Your task to perform on an android device: Open Maps and search for coffee Image 0: 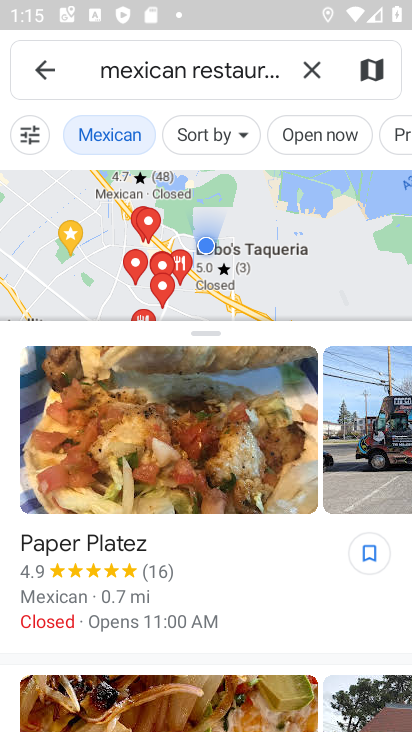
Step 0: click (310, 63)
Your task to perform on an android device: Open Maps and search for coffee Image 1: 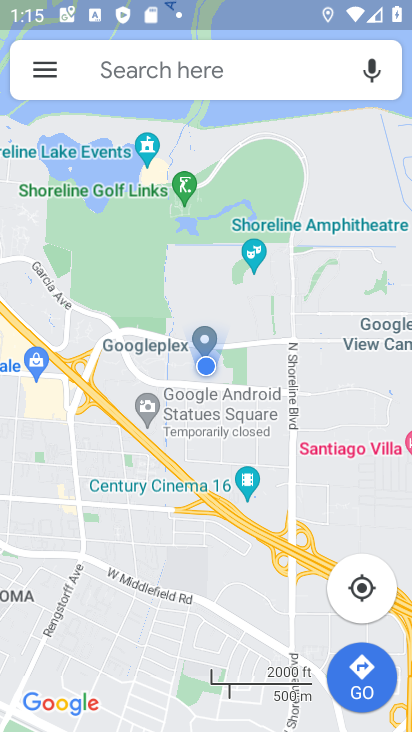
Step 1: click (109, 66)
Your task to perform on an android device: Open Maps and search for coffee Image 2: 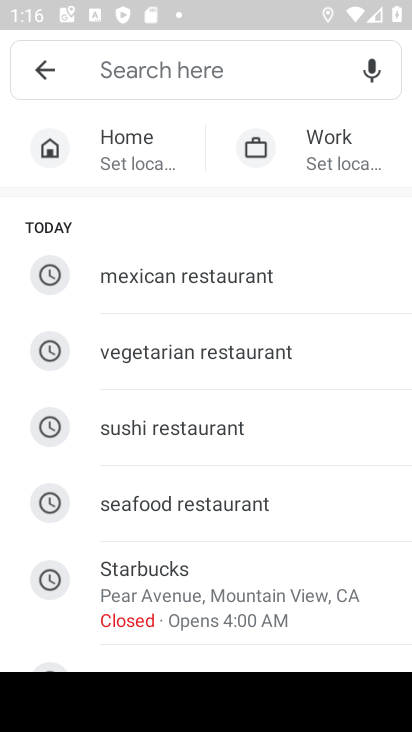
Step 2: type "coffee"
Your task to perform on an android device: Open Maps and search for coffee Image 3: 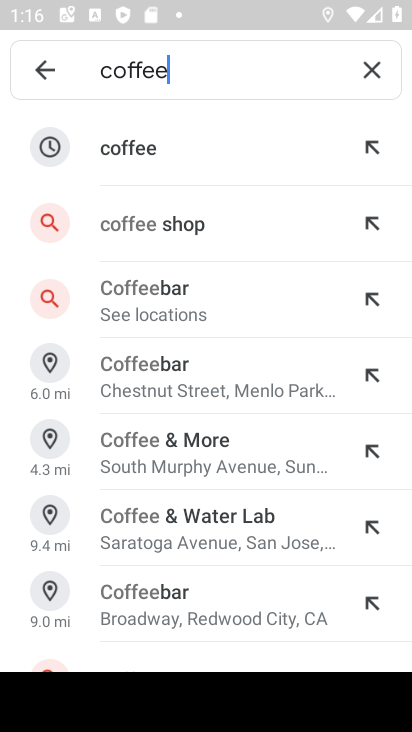
Step 3: click (132, 146)
Your task to perform on an android device: Open Maps and search for coffee Image 4: 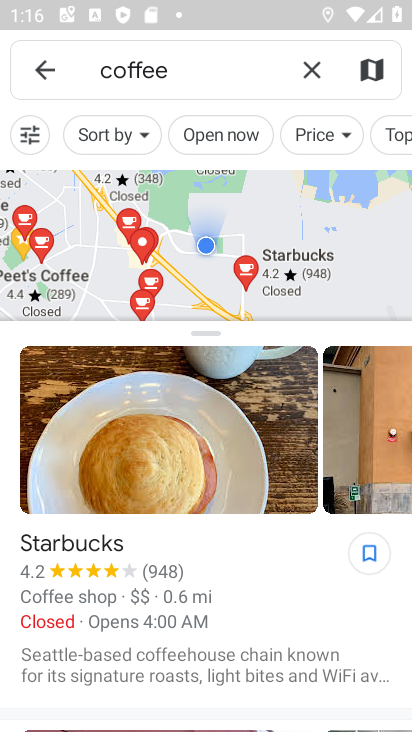
Step 4: task complete